Your task to perform on an android device: open the mobile data screen to see how much data has been used Image 0: 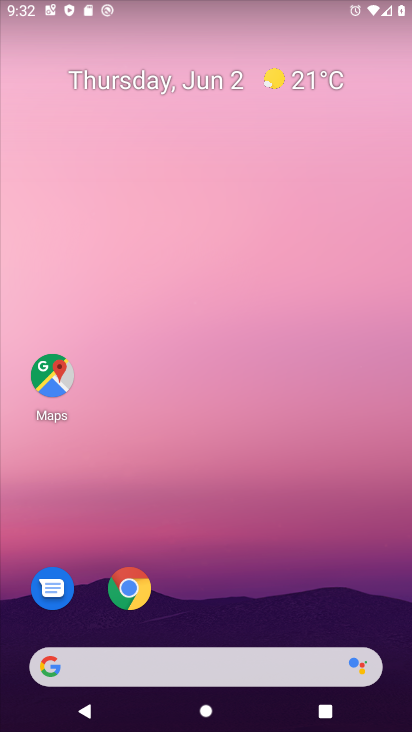
Step 0: drag from (209, 624) to (313, 241)
Your task to perform on an android device: open the mobile data screen to see how much data has been used Image 1: 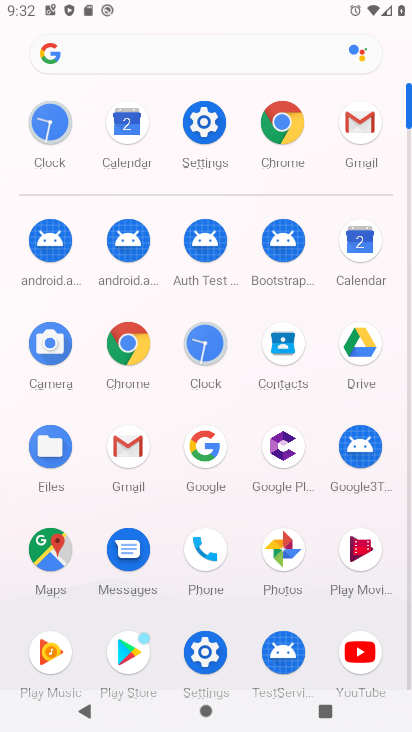
Step 1: click (198, 134)
Your task to perform on an android device: open the mobile data screen to see how much data has been used Image 2: 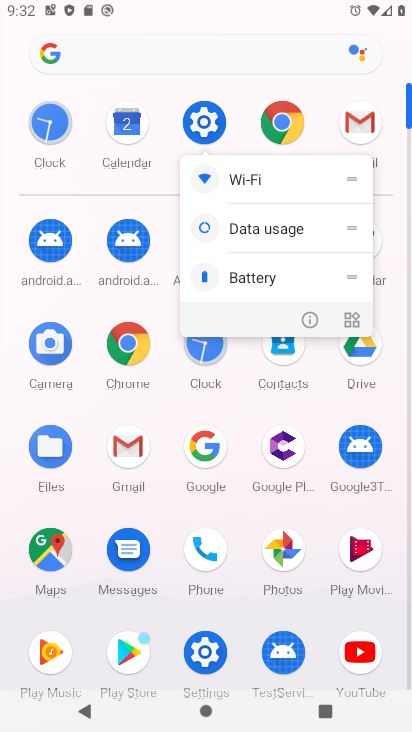
Step 2: click (212, 125)
Your task to perform on an android device: open the mobile data screen to see how much data has been used Image 3: 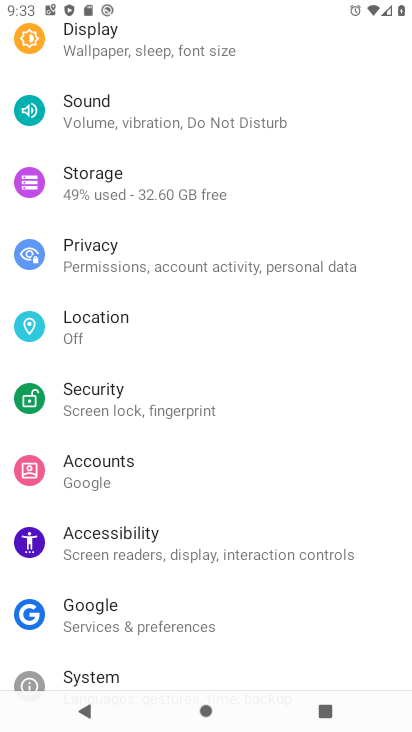
Step 3: drag from (163, 145) to (248, 660)
Your task to perform on an android device: open the mobile data screen to see how much data has been used Image 4: 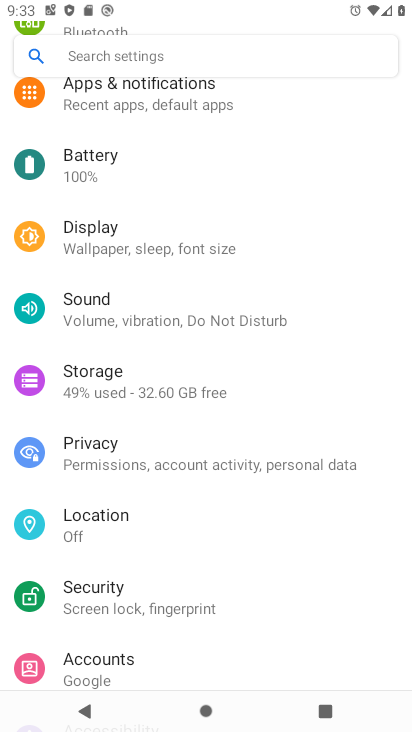
Step 4: drag from (129, 113) to (232, 546)
Your task to perform on an android device: open the mobile data screen to see how much data has been used Image 5: 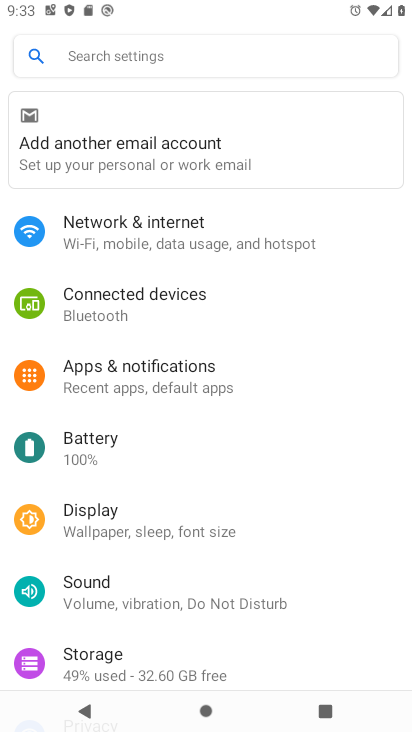
Step 5: click (210, 248)
Your task to perform on an android device: open the mobile data screen to see how much data has been used Image 6: 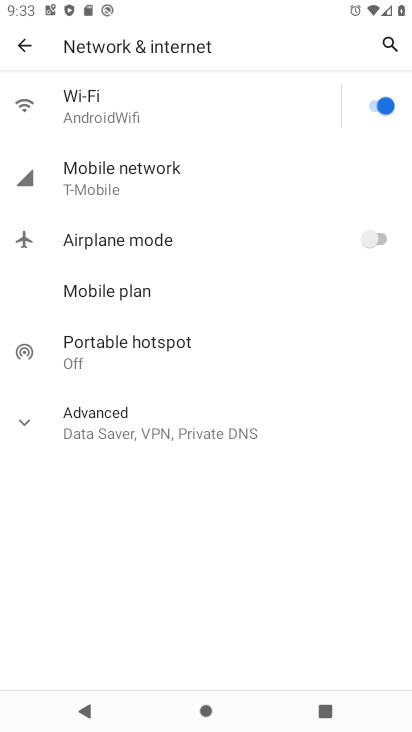
Step 6: click (151, 181)
Your task to perform on an android device: open the mobile data screen to see how much data has been used Image 7: 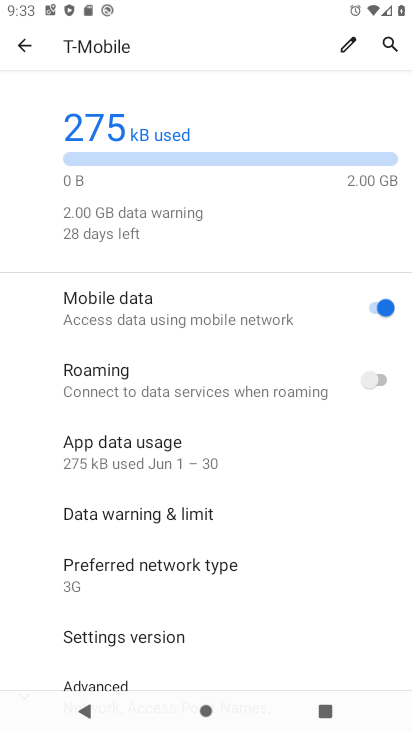
Step 7: task complete